Your task to perform on an android device: turn on sleep mode Image 0: 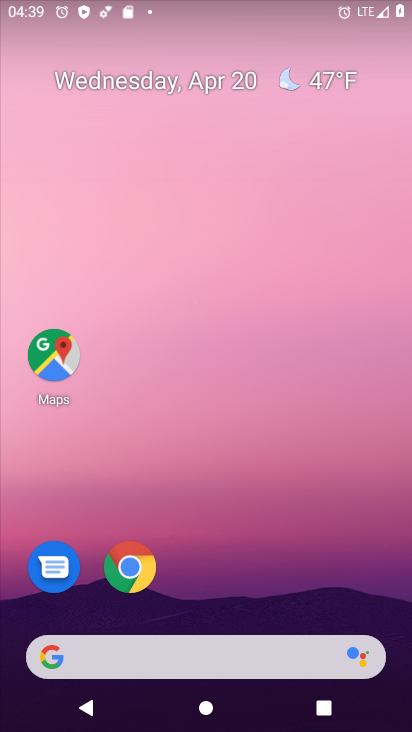
Step 0: drag from (243, 205) to (241, 107)
Your task to perform on an android device: turn on sleep mode Image 1: 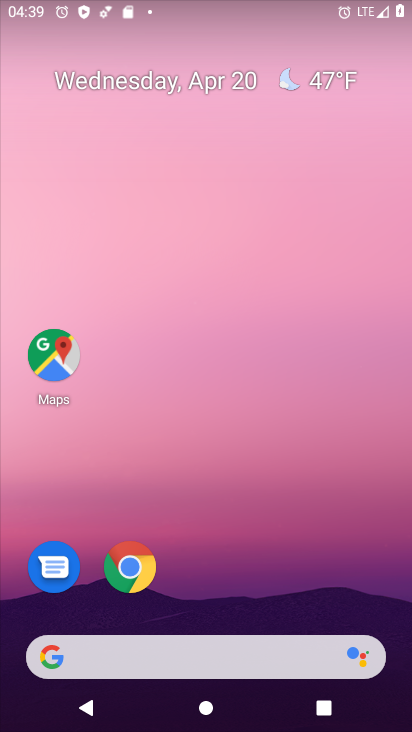
Step 1: drag from (408, 677) to (365, 66)
Your task to perform on an android device: turn on sleep mode Image 2: 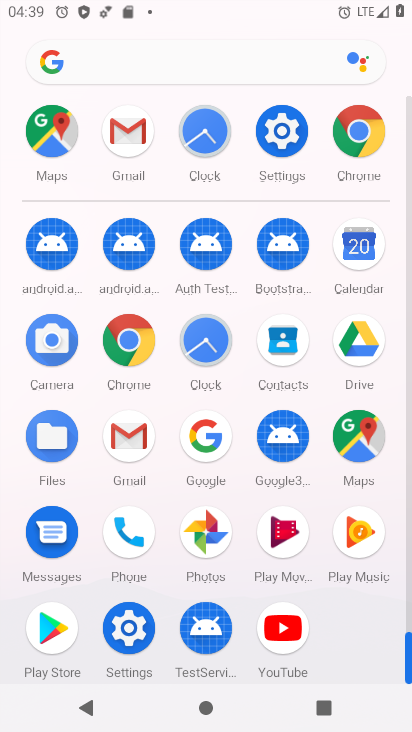
Step 2: drag from (11, 579) to (26, 312)
Your task to perform on an android device: turn on sleep mode Image 3: 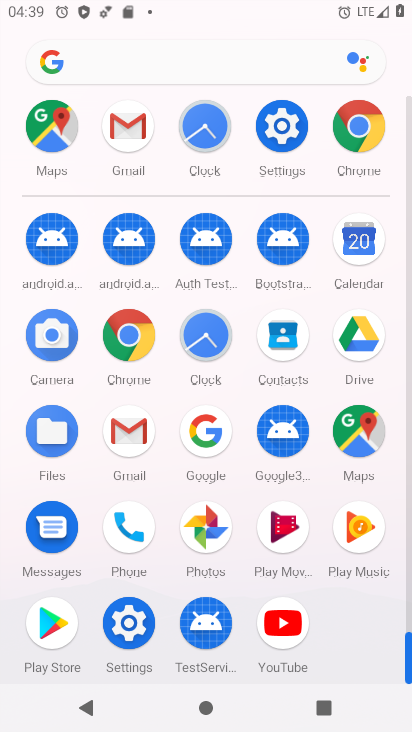
Step 3: click (125, 619)
Your task to perform on an android device: turn on sleep mode Image 4: 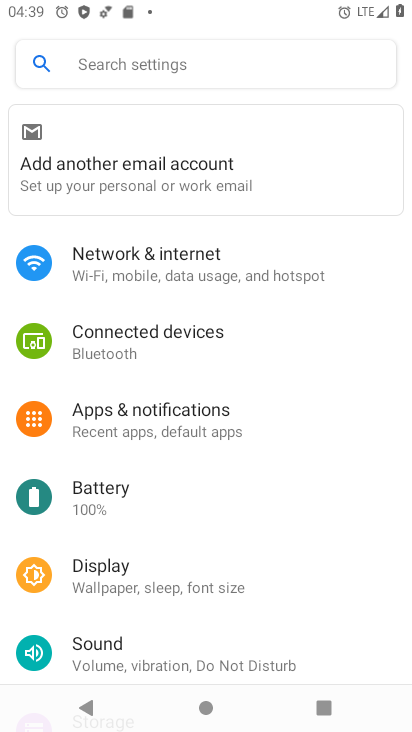
Step 4: click (194, 572)
Your task to perform on an android device: turn on sleep mode Image 5: 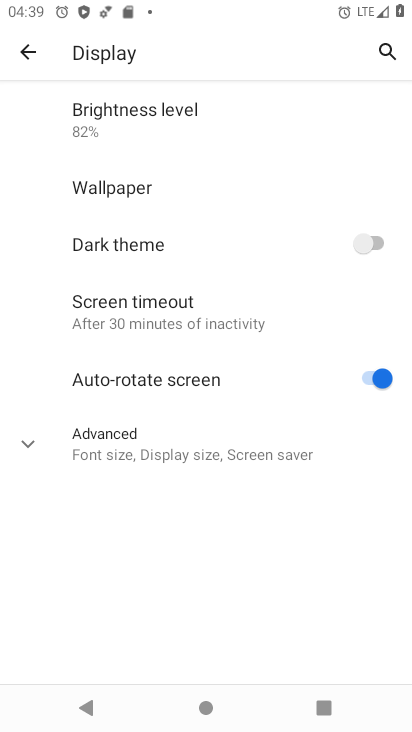
Step 5: click (34, 440)
Your task to perform on an android device: turn on sleep mode Image 6: 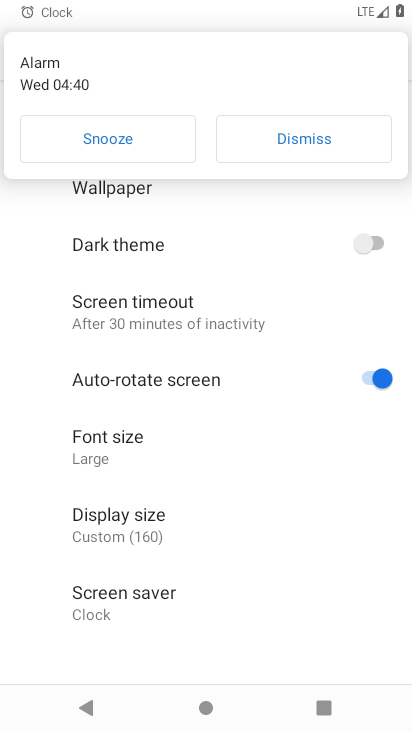
Step 6: click (284, 146)
Your task to perform on an android device: turn on sleep mode Image 7: 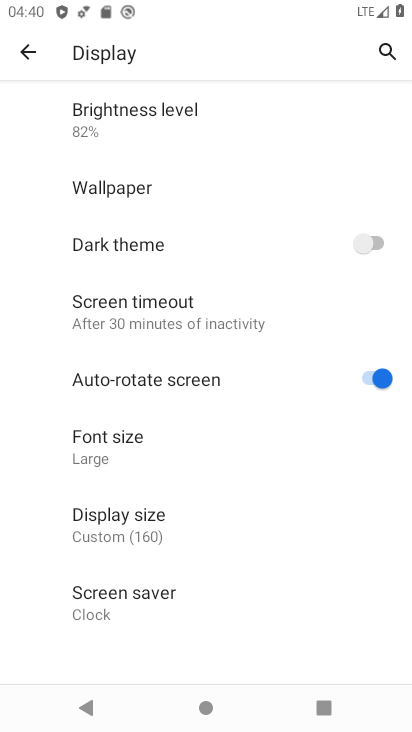
Step 7: task complete